Your task to perform on an android device: Set the phone to "Do not disturb". Image 0: 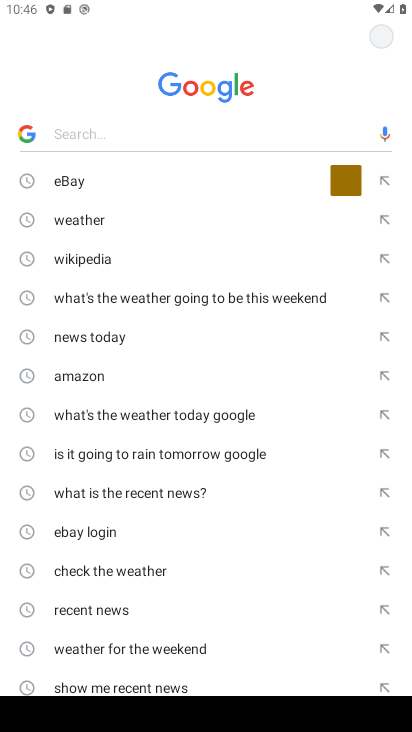
Step 0: press home button
Your task to perform on an android device: Set the phone to "Do not disturb". Image 1: 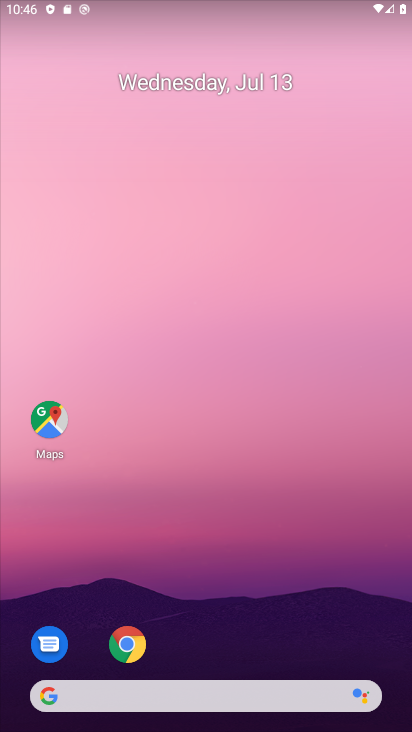
Step 1: drag from (236, 590) to (182, 147)
Your task to perform on an android device: Set the phone to "Do not disturb". Image 2: 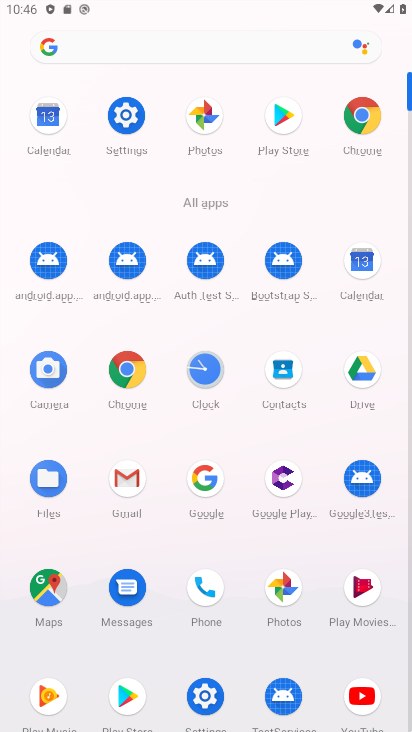
Step 2: click (124, 118)
Your task to perform on an android device: Set the phone to "Do not disturb". Image 3: 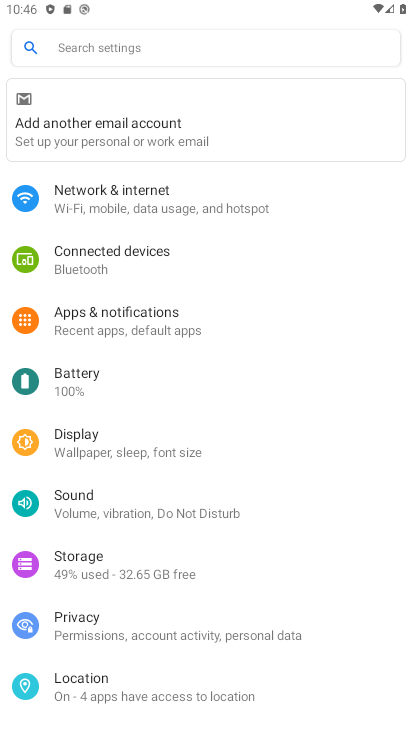
Step 3: click (89, 500)
Your task to perform on an android device: Set the phone to "Do not disturb". Image 4: 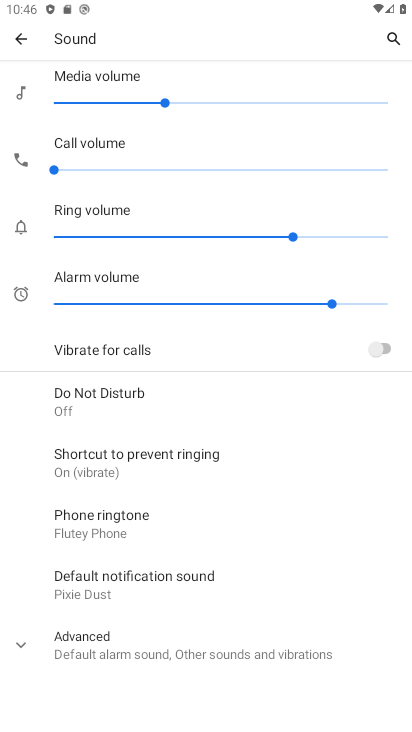
Step 4: click (85, 390)
Your task to perform on an android device: Set the phone to "Do not disturb". Image 5: 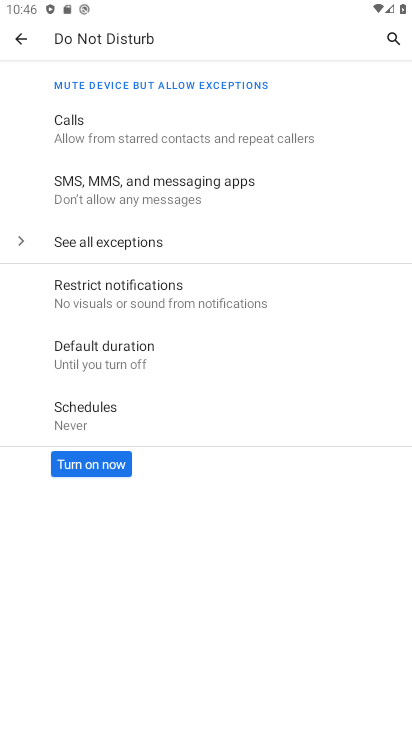
Step 5: click (87, 466)
Your task to perform on an android device: Set the phone to "Do not disturb". Image 6: 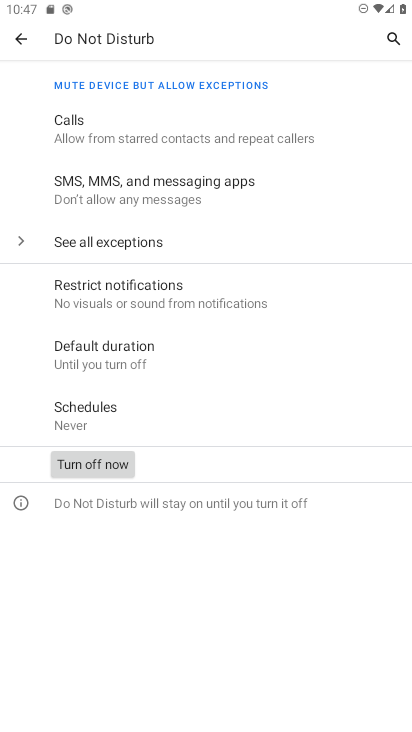
Step 6: task complete